Your task to perform on an android device: Show me productivity apps on the Play Store Image 0: 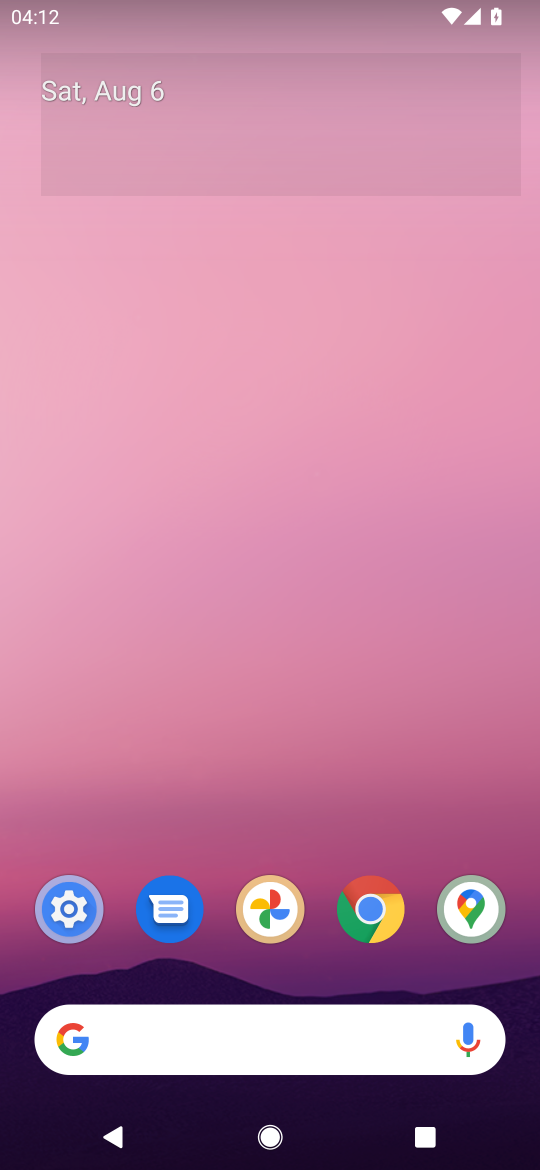
Step 0: drag from (239, 927) to (264, 123)
Your task to perform on an android device: Show me productivity apps on the Play Store Image 1: 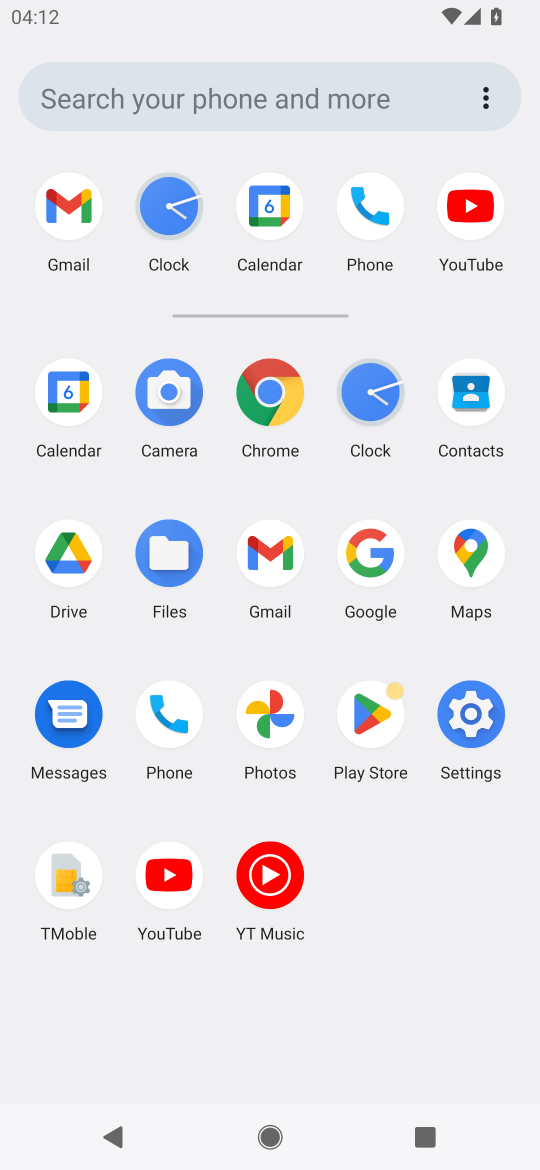
Step 1: click (371, 739)
Your task to perform on an android device: Show me productivity apps on the Play Store Image 2: 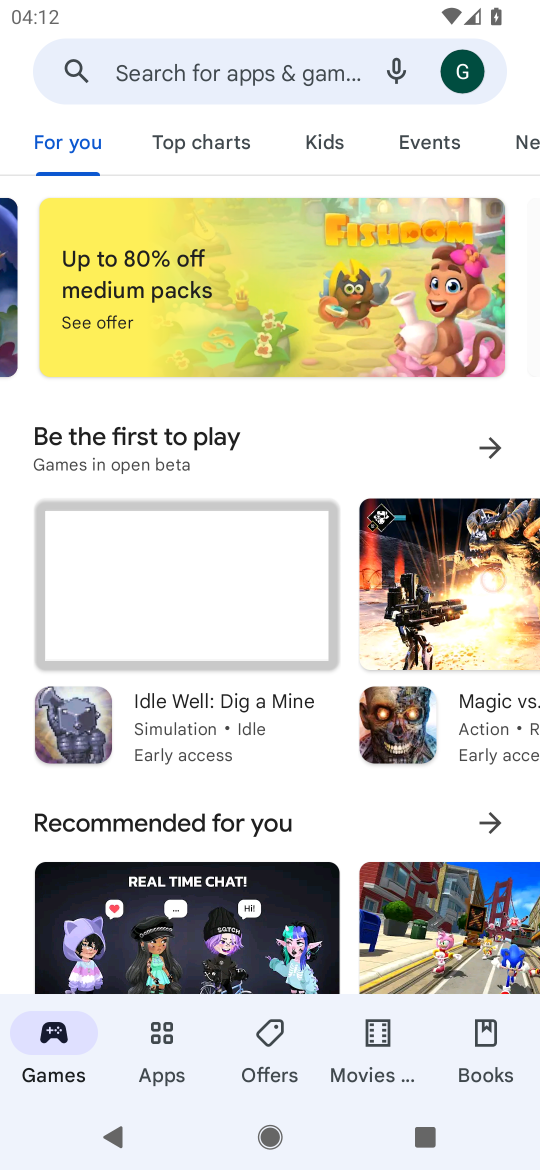
Step 2: click (168, 1043)
Your task to perform on an android device: Show me productivity apps on the Play Store Image 3: 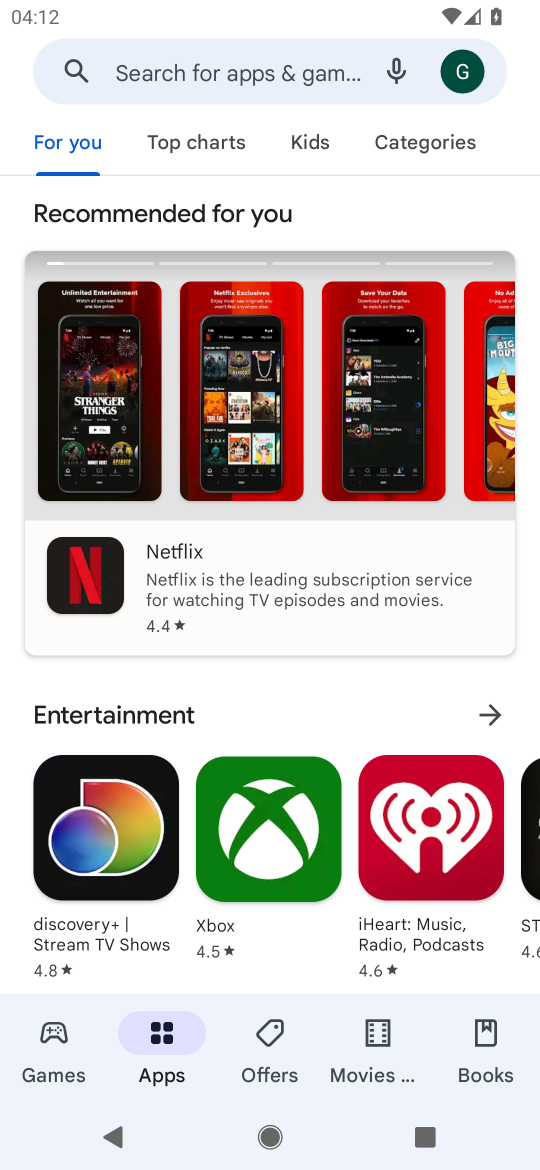
Step 3: task complete